Your task to perform on an android device: Go to sound settings Image 0: 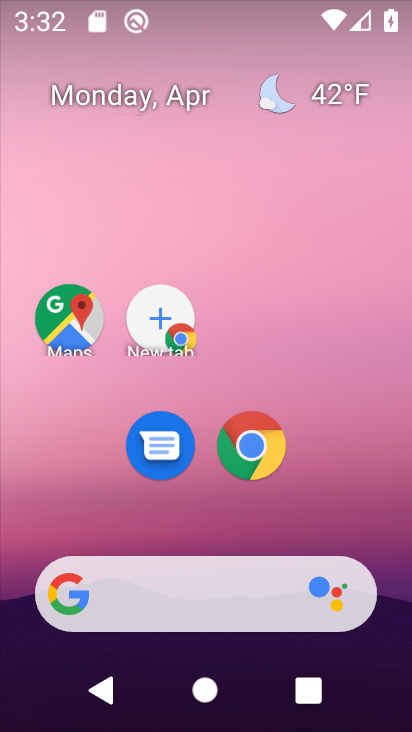
Step 0: drag from (218, 528) to (224, 83)
Your task to perform on an android device: Go to sound settings Image 1: 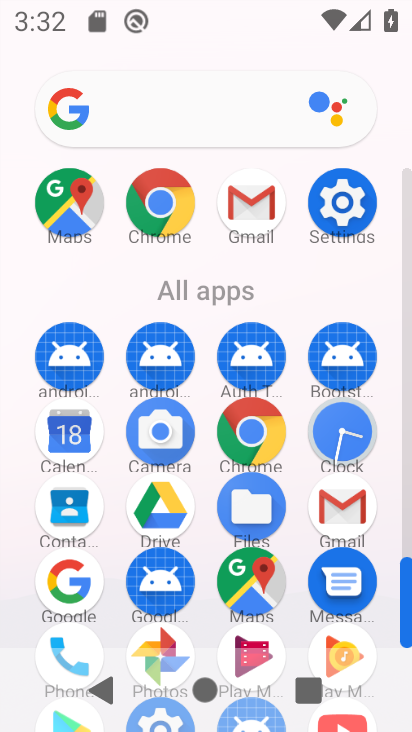
Step 1: click (342, 196)
Your task to perform on an android device: Go to sound settings Image 2: 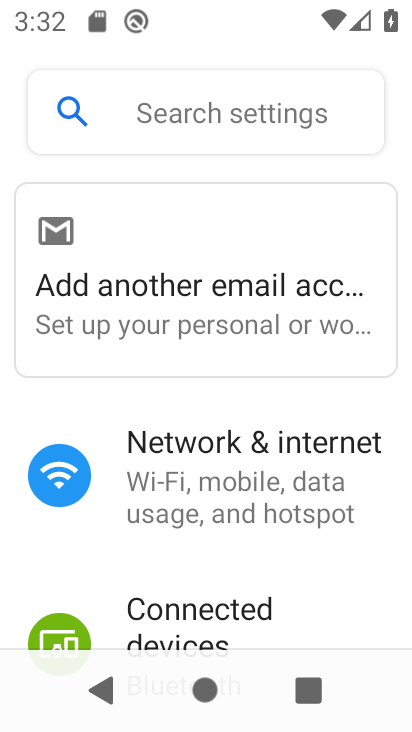
Step 2: drag from (234, 603) to (262, 135)
Your task to perform on an android device: Go to sound settings Image 3: 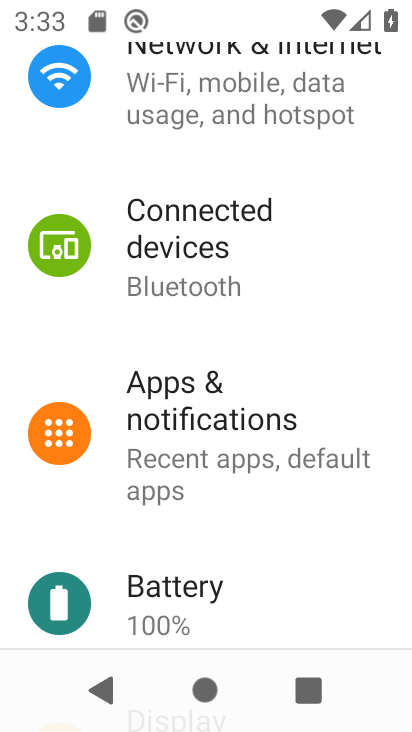
Step 3: drag from (252, 594) to (290, 159)
Your task to perform on an android device: Go to sound settings Image 4: 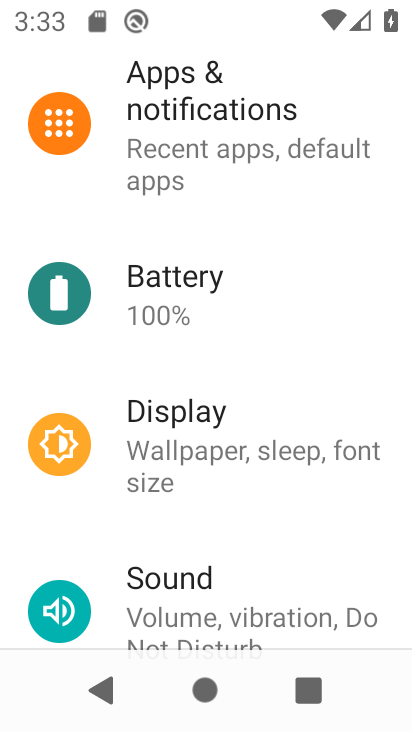
Step 4: click (238, 586)
Your task to perform on an android device: Go to sound settings Image 5: 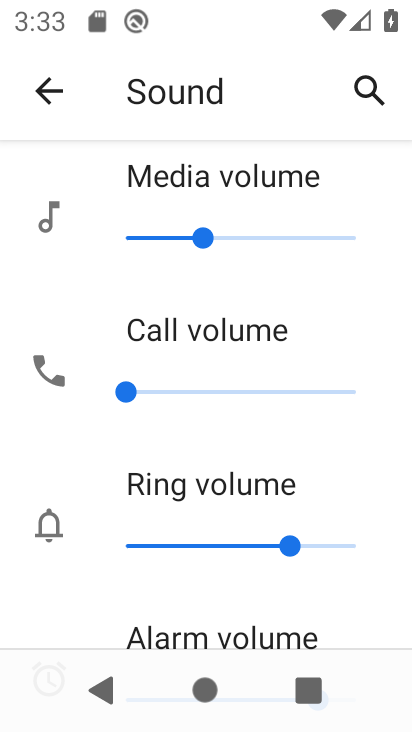
Step 5: task complete